Your task to perform on an android device: delete a single message in the gmail app Image 0: 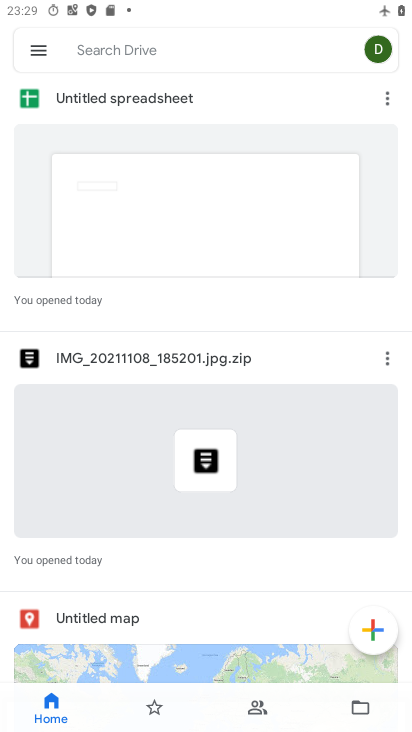
Step 0: press home button
Your task to perform on an android device: delete a single message in the gmail app Image 1: 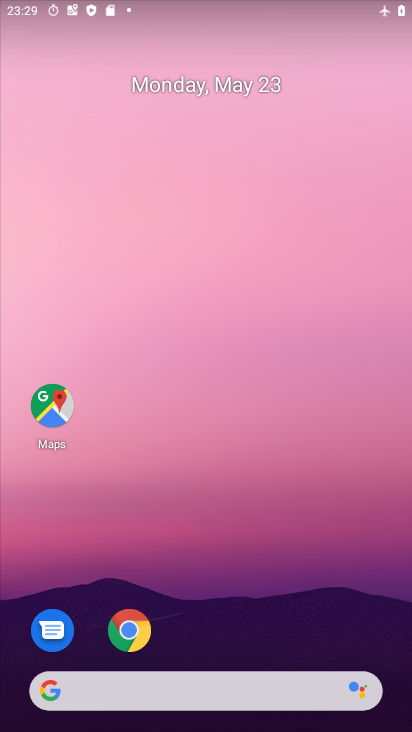
Step 1: drag from (294, 597) to (313, 7)
Your task to perform on an android device: delete a single message in the gmail app Image 2: 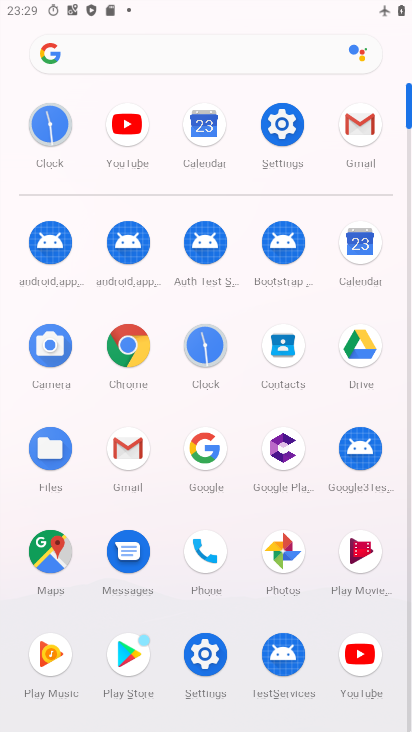
Step 2: click (362, 128)
Your task to perform on an android device: delete a single message in the gmail app Image 3: 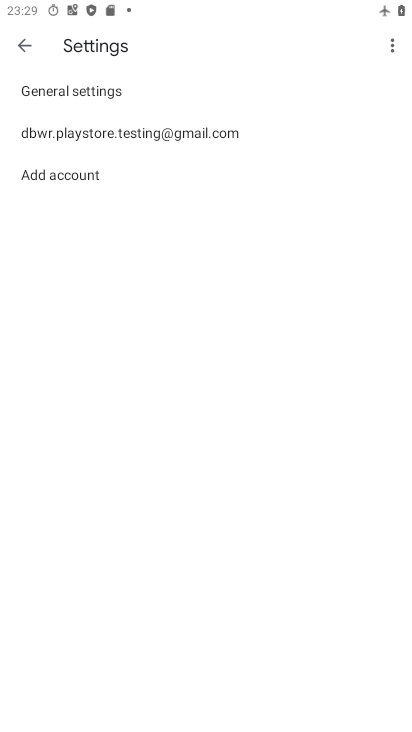
Step 3: click (19, 48)
Your task to perform on an android device: delete a single message in the gmail app Image 4: 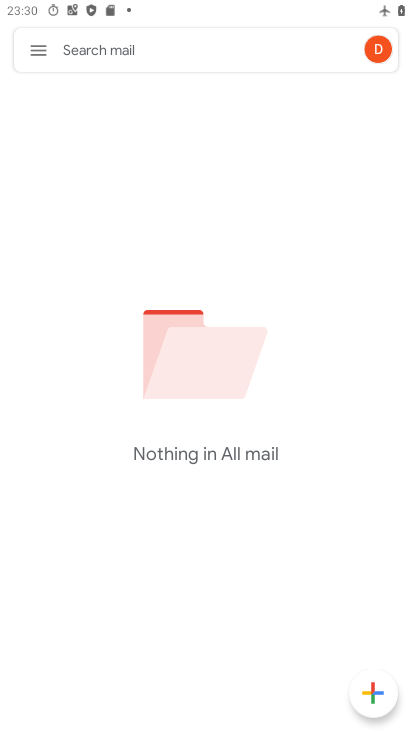
Step 4: task complete